Your task to perform on an android device: search for starred emails in the gmail app Image 0: 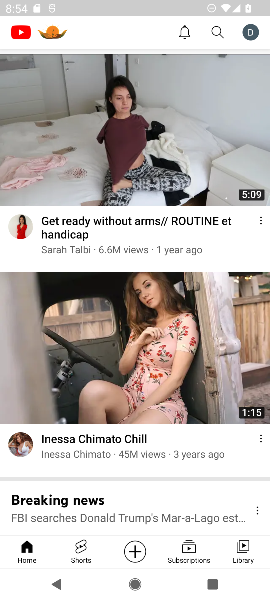
Step 0: press home button
Your task to perform on an android device: search for starred emails in the gmail app Image 1: 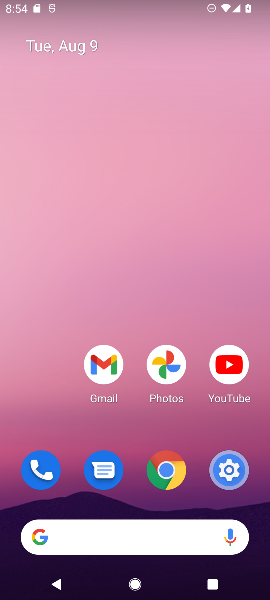
Step 1: click (102, 362)
Your task to perform on an android device: search for starred emails in the gmail app Image 2: 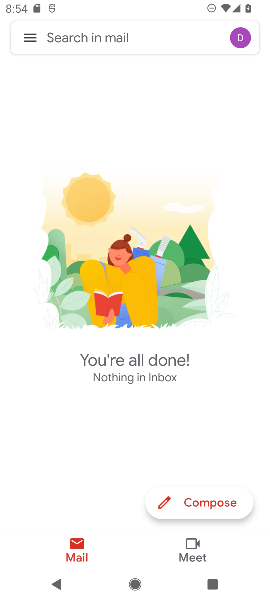
Step 2: click (26, 40)
Your task to perform on an android device: search for starred emails in the gmail app Image 3: 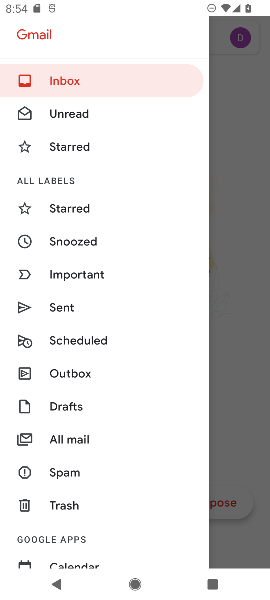
Step 3: click (58, 213)
Your task to perform on an android device: search for starred emails in the gmail app Image 4: 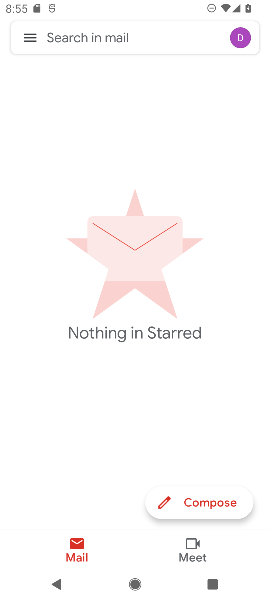
Step 4: task complete